Your task to perform on an android device: turn on priority inbox in the gmail app Image 0: 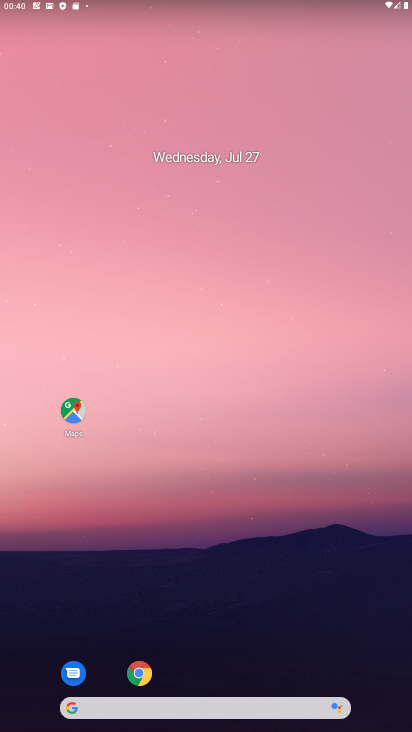
Step 0: drag from (210, 656) to (204, 101)
Your task to perform on an android device: turn on priority inbox in the gmail app Image 1: 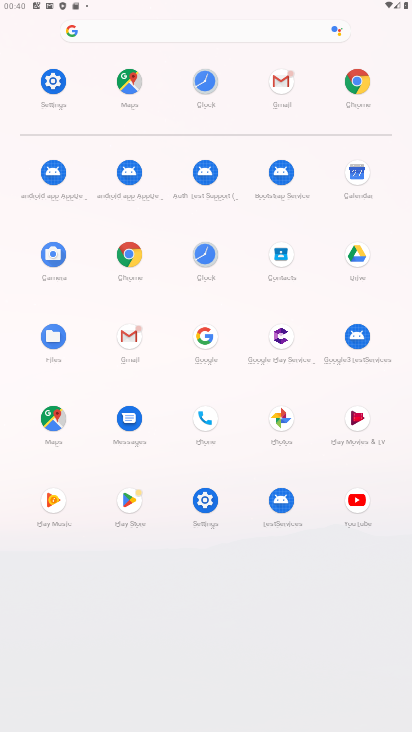
Step 1: click (287, 78)
Your task to perform on an android device: turn on priority inbox in the gmail app Image 2: 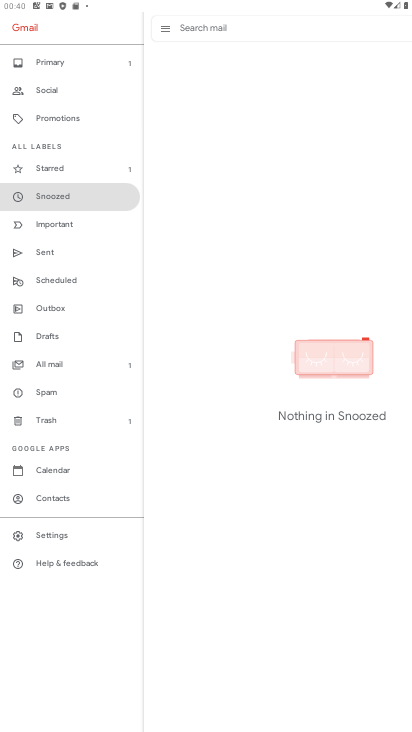
Step 2: click (40, 536)
Your task to perform on an android device: turn on priority inbox in the gmail app Image 3: 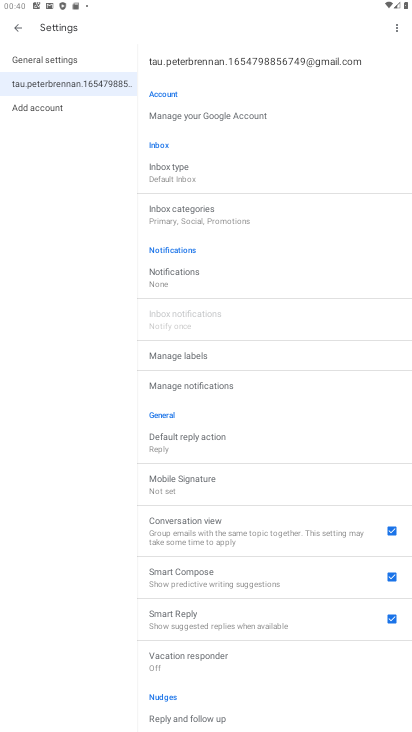
Step 3: click (173, 174)
Your task to perform on an android device: turn on priority inbox in the gmail app Image 4: 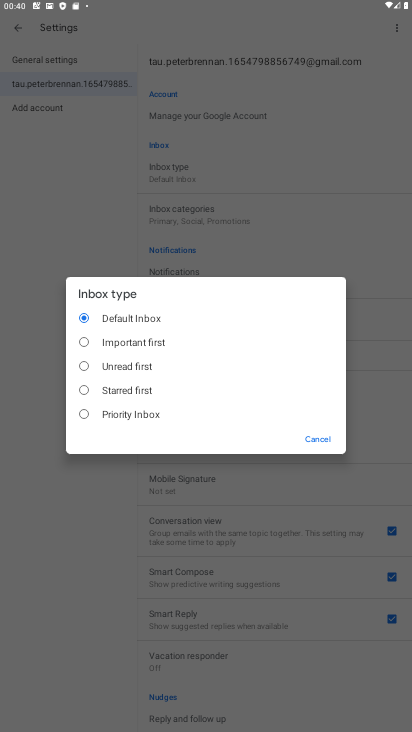
Step 4: click (118, 408)
Your task to perform on an android device: turn on priority inbox in the gmail app Image 5: 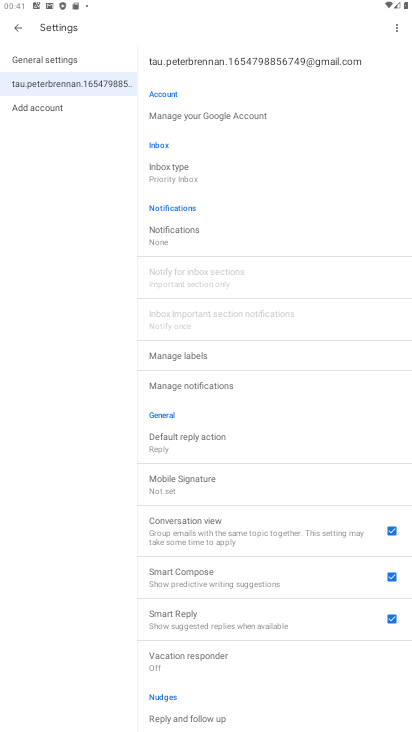
Step 5: task complete